Your task to perform on an android device: create a new album in the google photos Image 0: 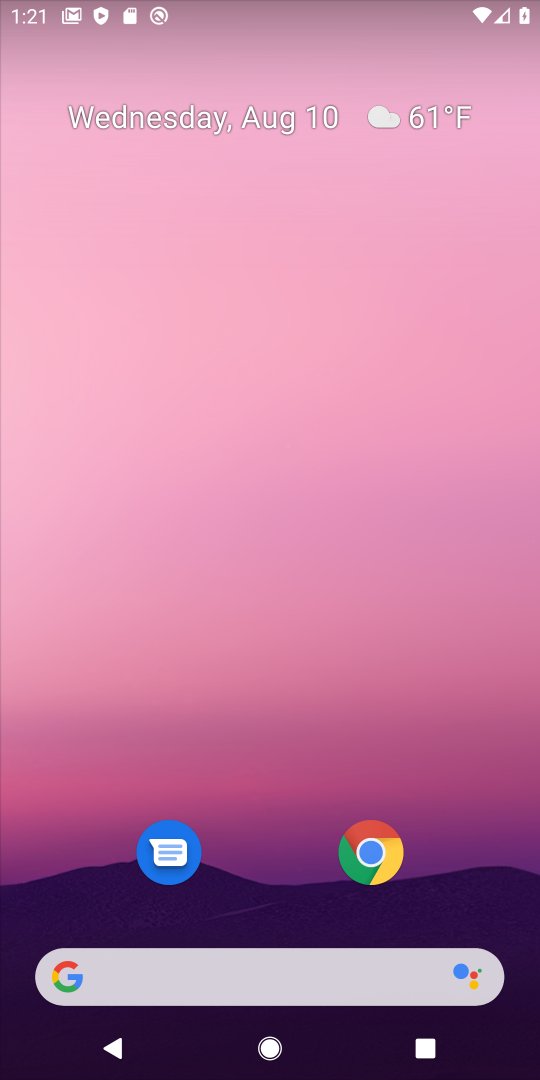
Step 0: drag from (262, 579) to (246, 16)
Your task to perform on an android device: create a new album in the google photos Image 1: 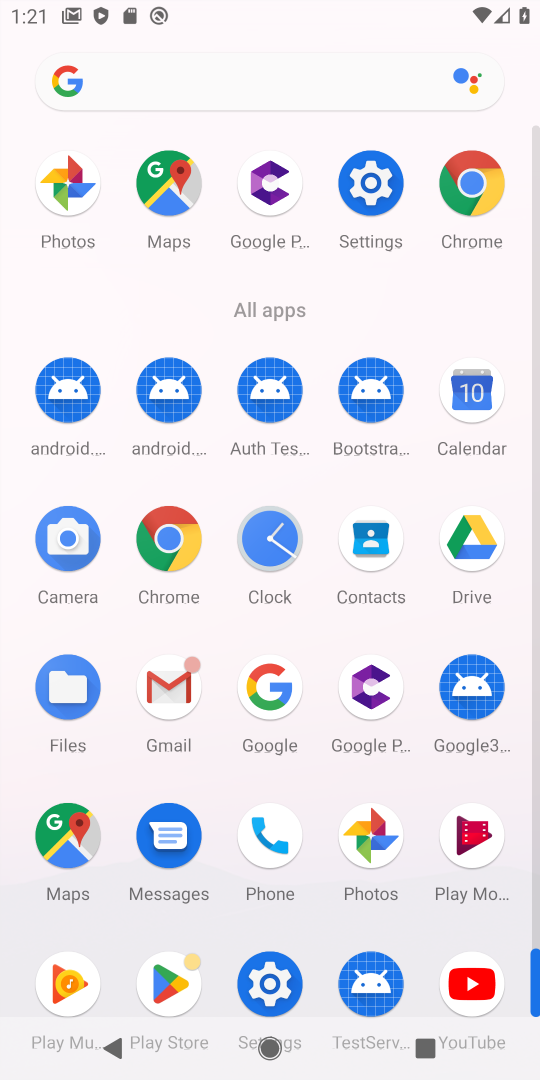
Step 1: click (372, 839)
Your task to perform on an android device: create a new album in the google photos Image 2: 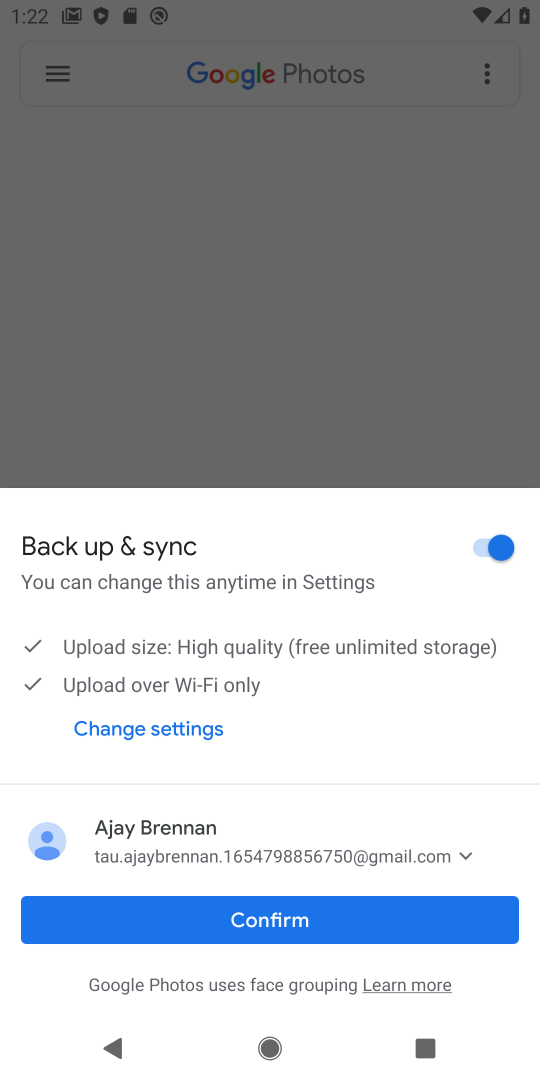
Step 2: click (430, 936)
Your task to perform on an android device: create a new album in the google photos Image 3: 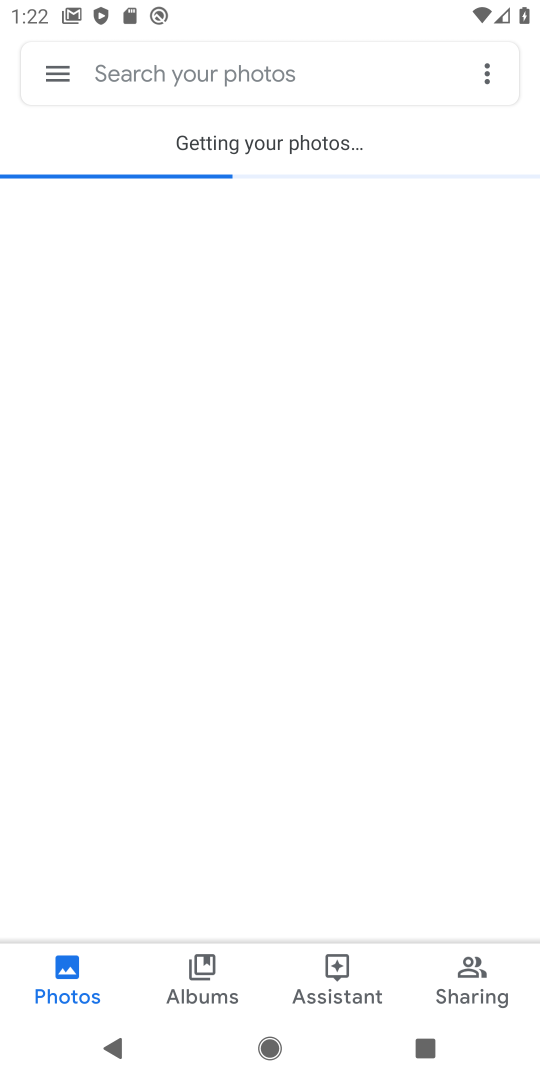
Step 3: click (216, 970)
Your task to perform on an android device: create a new album in the google photos Image 4: 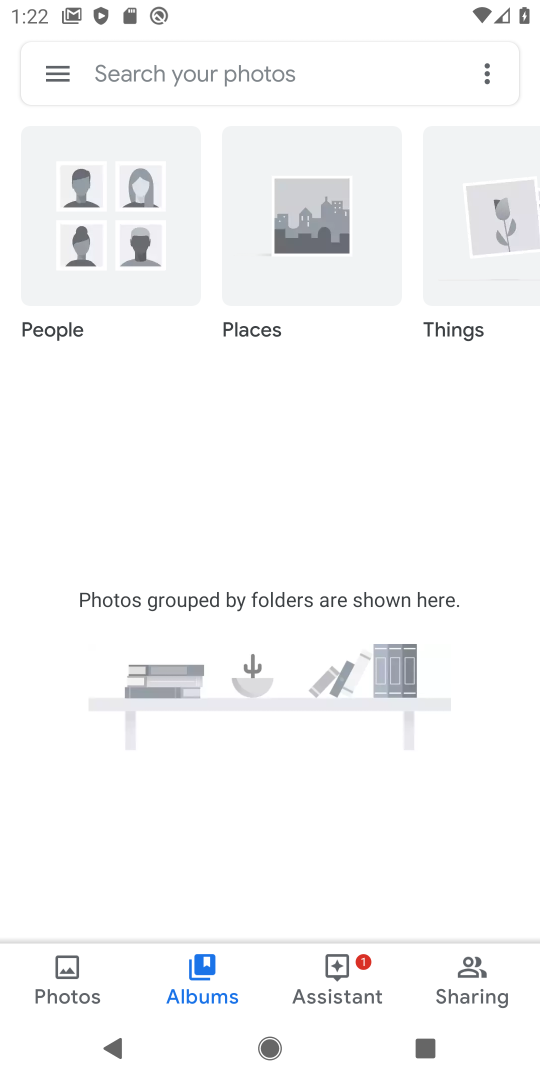
Step 4: click (198, 967)
Your task to perform on an android device: create a new album in the google photos Image 5: 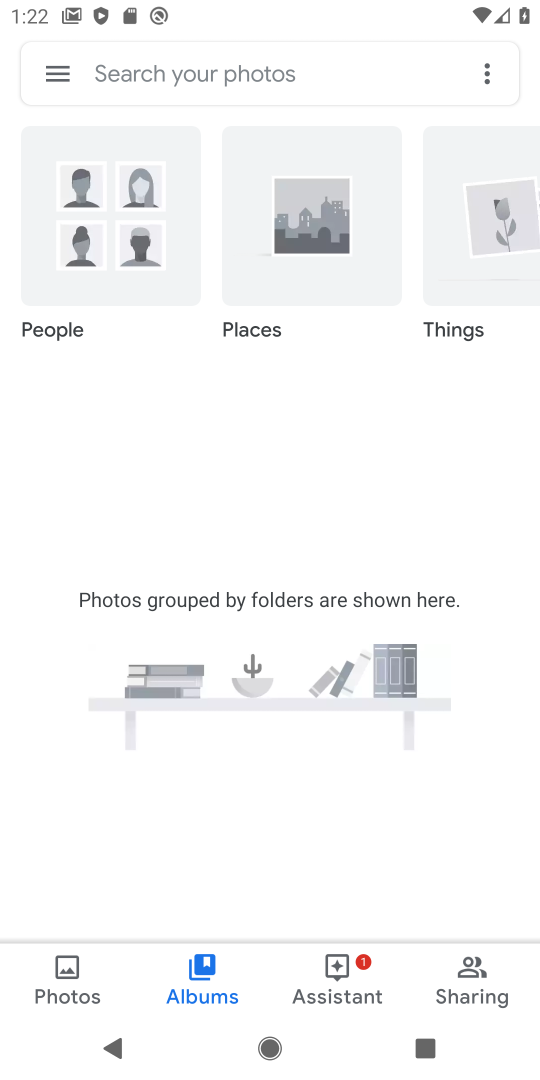
Step 5: click (198, 964)
Your task to perform on an android device: create a new album in the google photos Image 6: 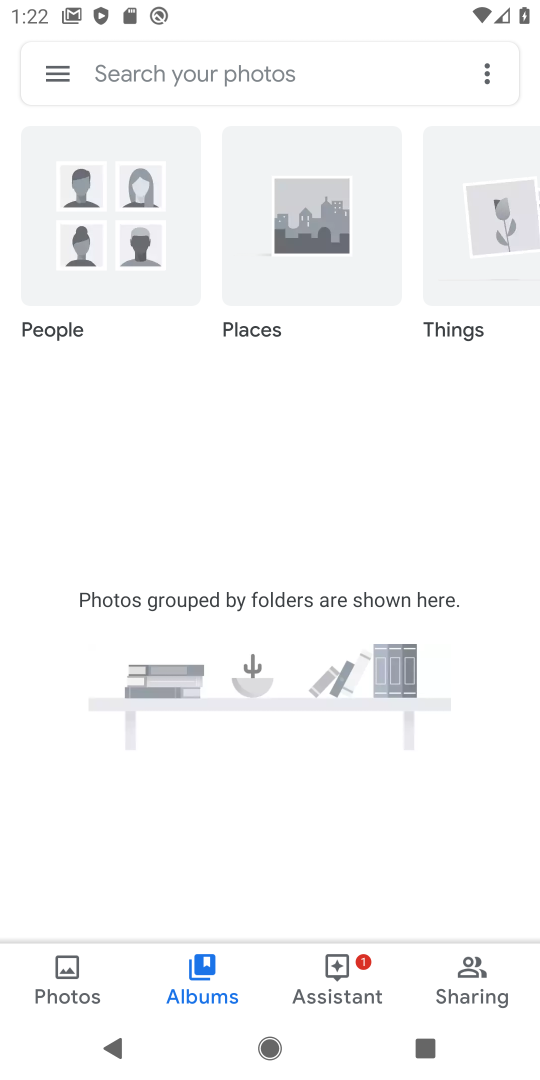
Step 6: click (488, 72)
Your task to perform on an android device: create a new album in the google photos Image 7: 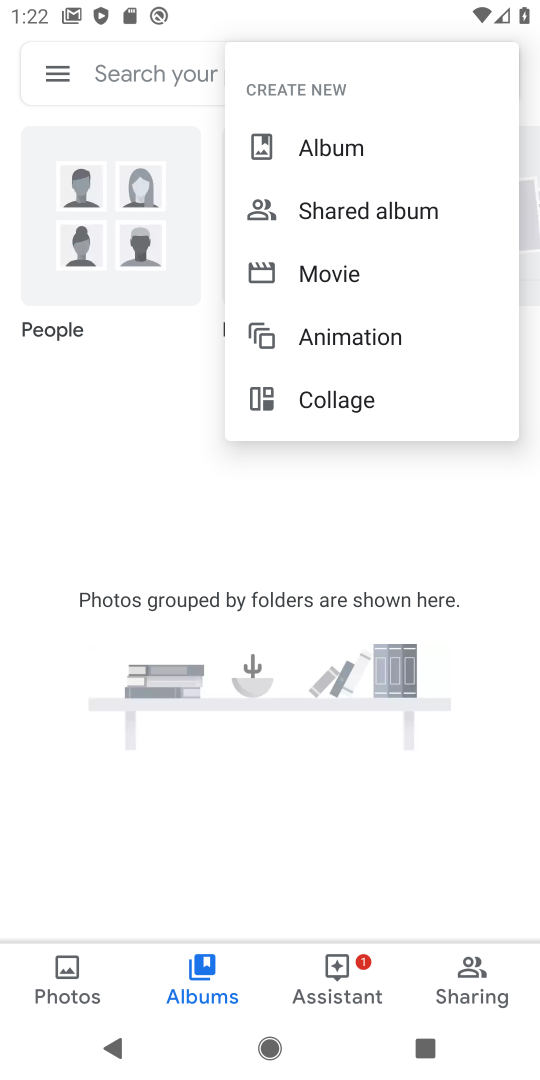
Step 7: click (337, 149)
Your task to perform on an android device: create a new album in the google photos Image 8: 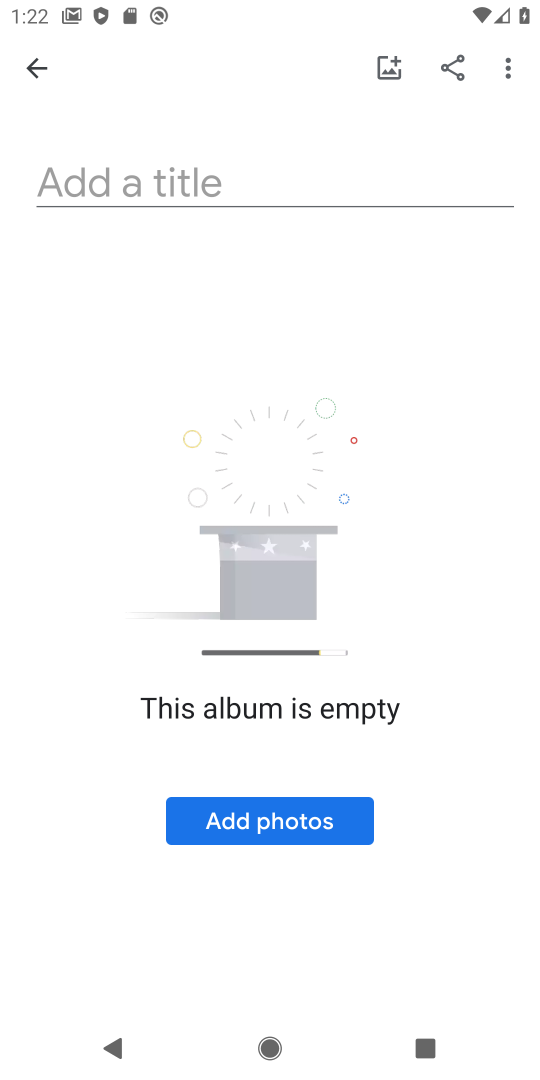
Step 8: click (274, 187)
Your task to perform on an android device: create a new album in the google photos Image 9: 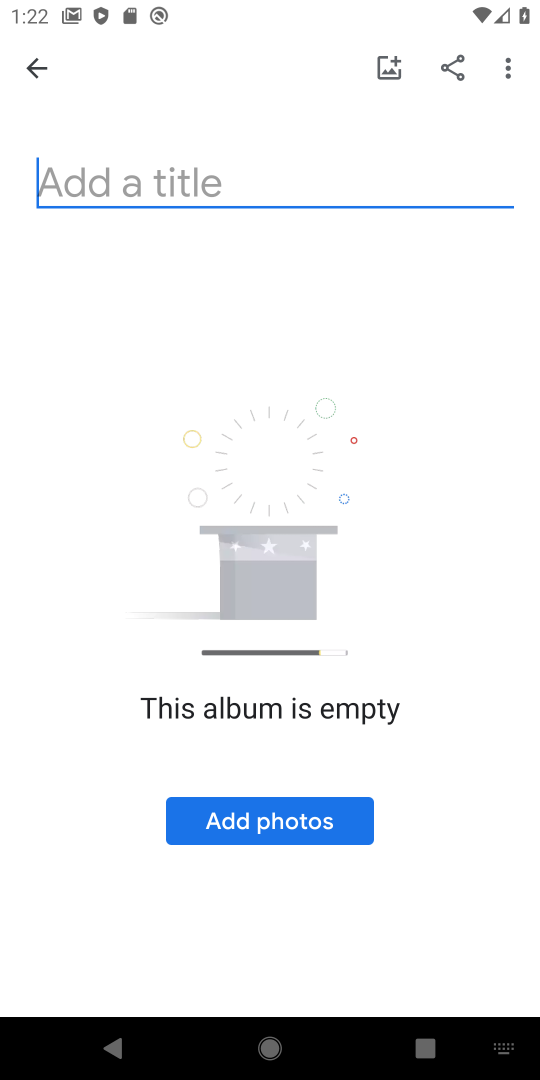
Step 9: type "poiuy"
Your task to perform on an android device: create a new album in the google photos Image 10: 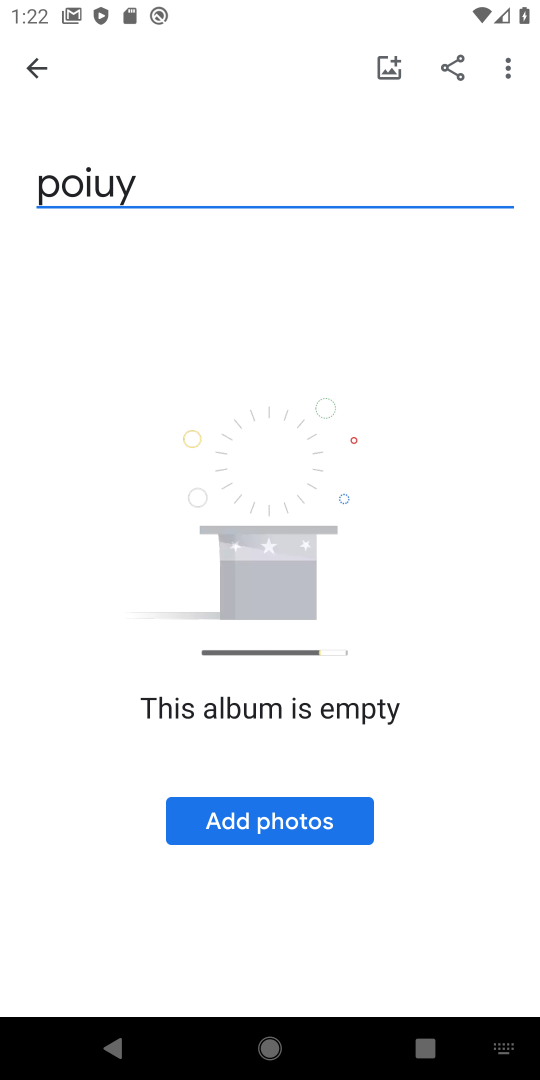
Step 10: click (499, 59)
Your task to perform on an android device: create a new album in the google photos Image 11: 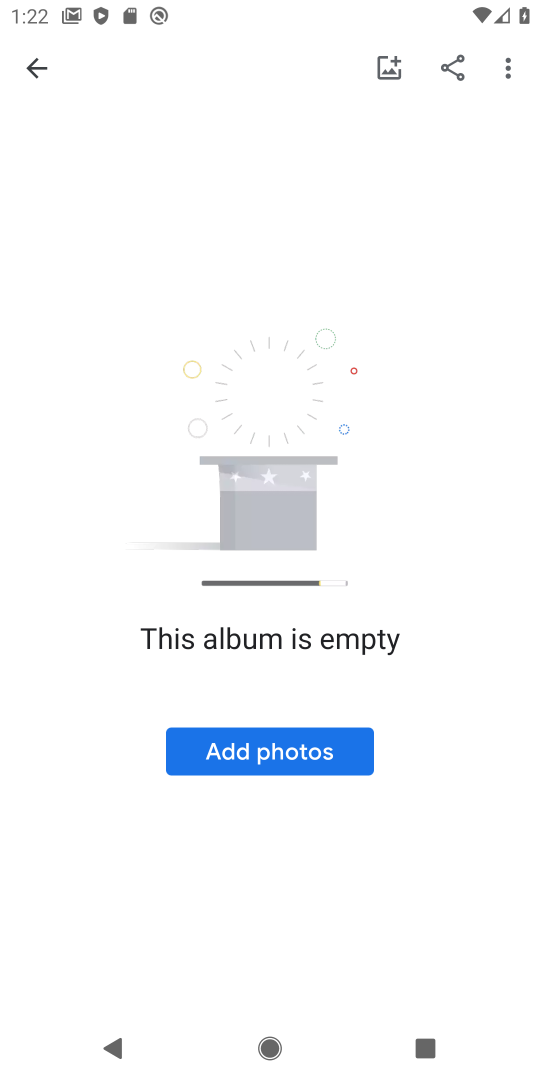
Step 11: click (336, 343)
Your task to perform on an android device: create a new album in the google photos Image 12: 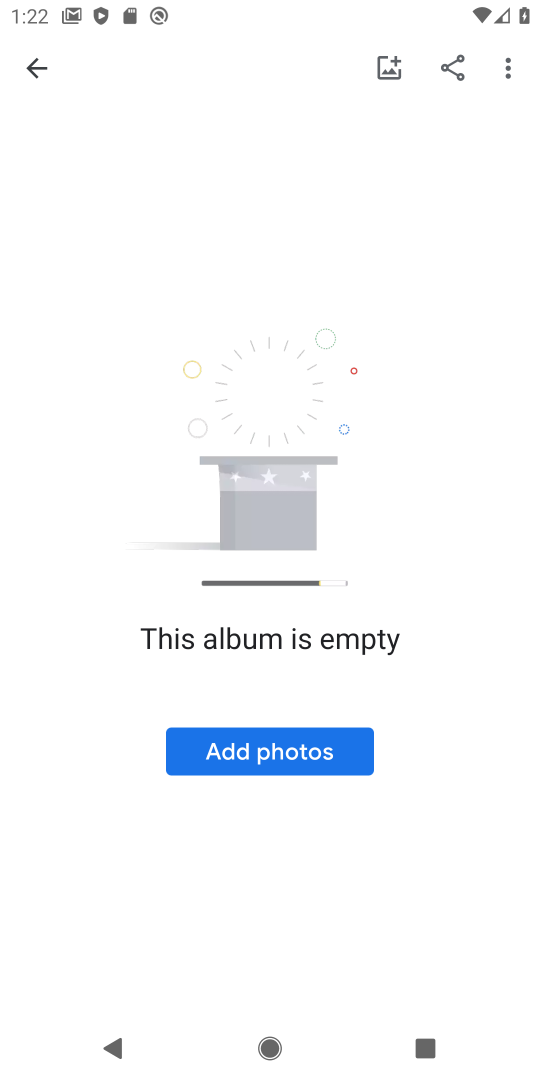
Step 12: click (41, 52)
Your task to perform on an android device: create a new album in the google photos Image 13: 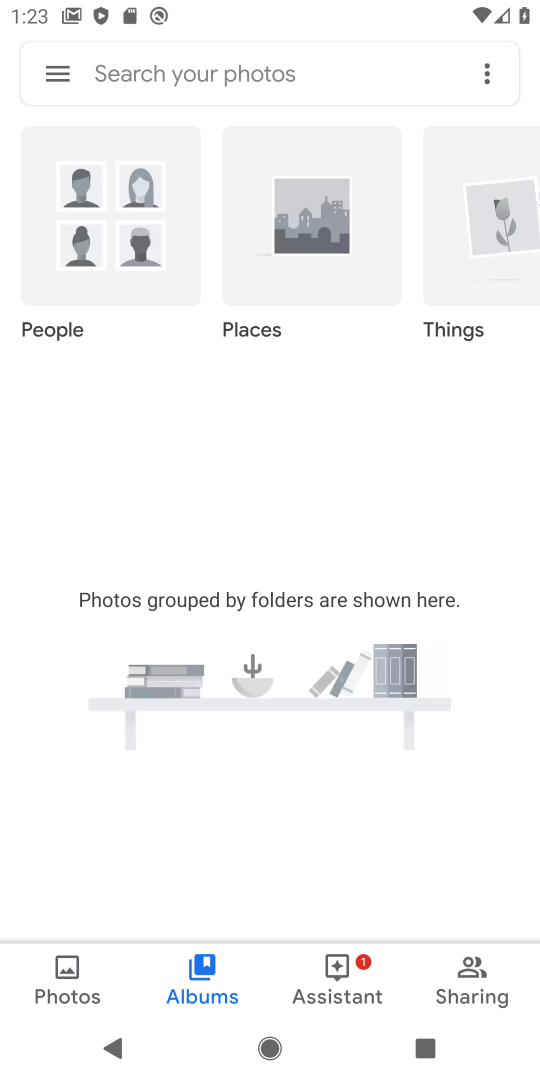
Step 13: task complete